Your task to perform on an android device: What's the weather today? Image 0: 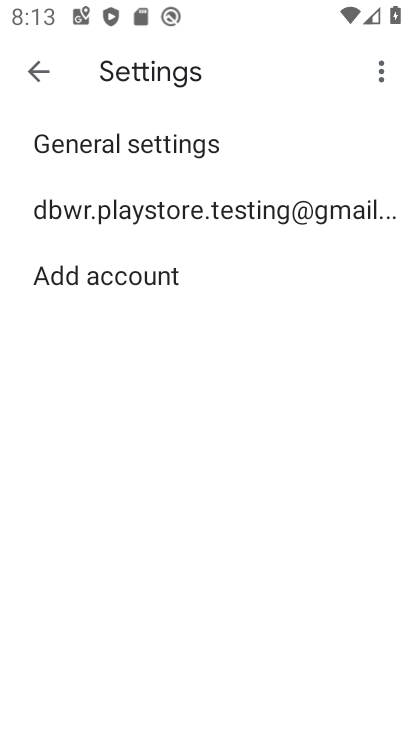
Step 0: press home button
Your task to perform on an android device: What's the weather today? Image 1: 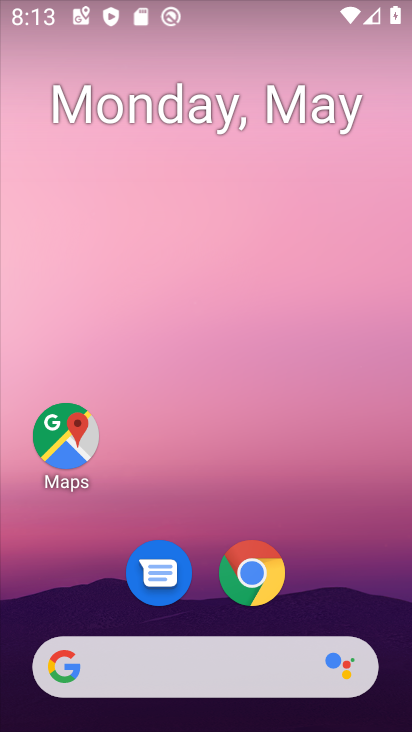
Step 1: drag from (265, 635) to (224, 136)
Your task to perform on an android device: What's the weather today? Image 2: 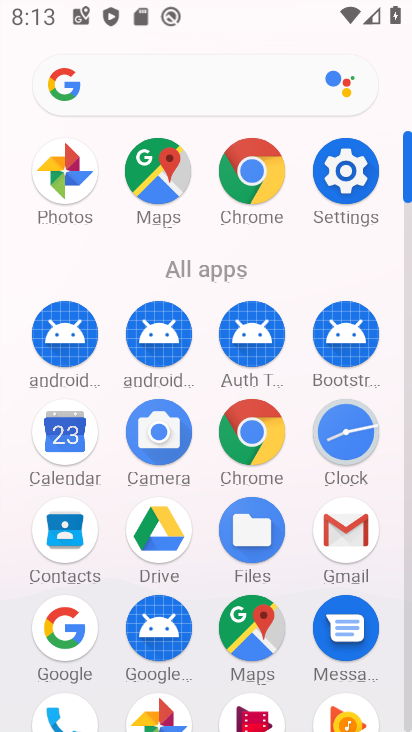
Step 2: drag from (188, 552) to (188, 257)
Your task to perform on an android device: What's the weather today? Image 3: 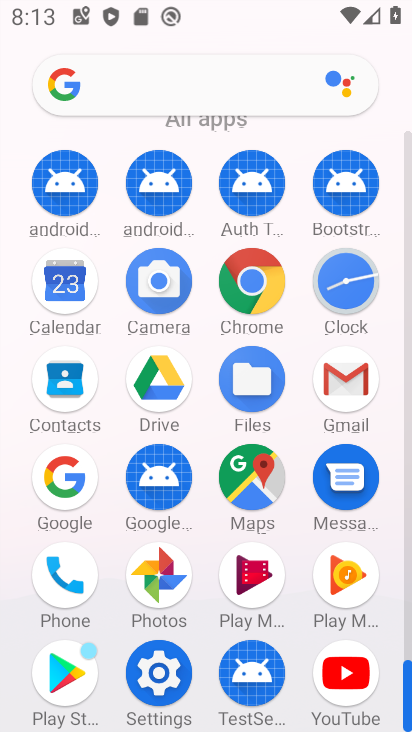
Step 3: click (63, 487)
Your task to perform on an android device: What's the weather today? Image 4: 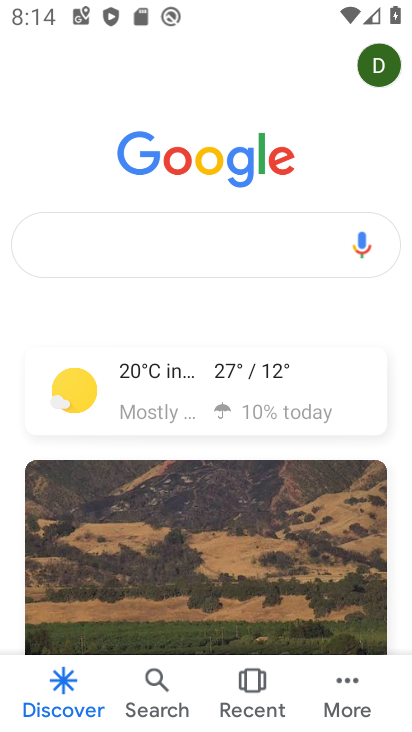
Step 4: click (195, 252)
Your task to perform on an android device: What's the weather today? Image 5: 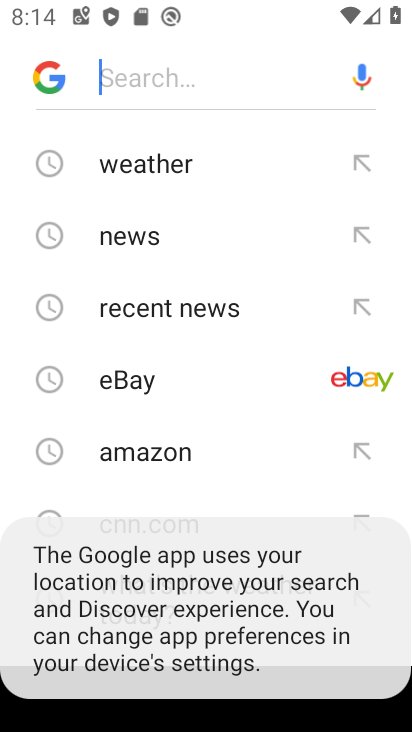
Step 5: click (190, 165)
Your task to perform on an android device: What's the weather today? Image 6: 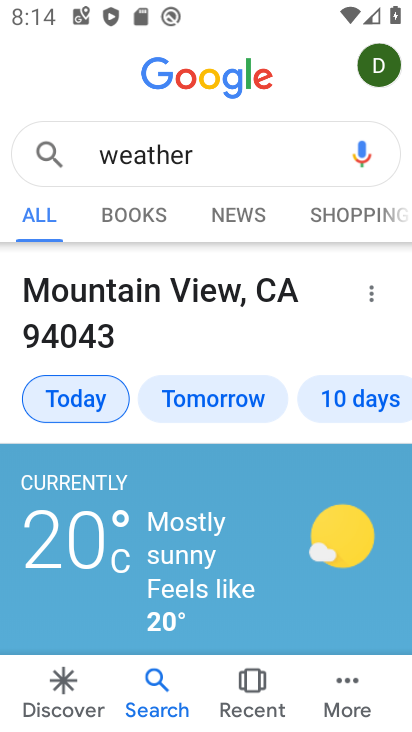
Step 6: task complete